Your task to perform on an android device: Do I have any events tomorrow? Image 0: 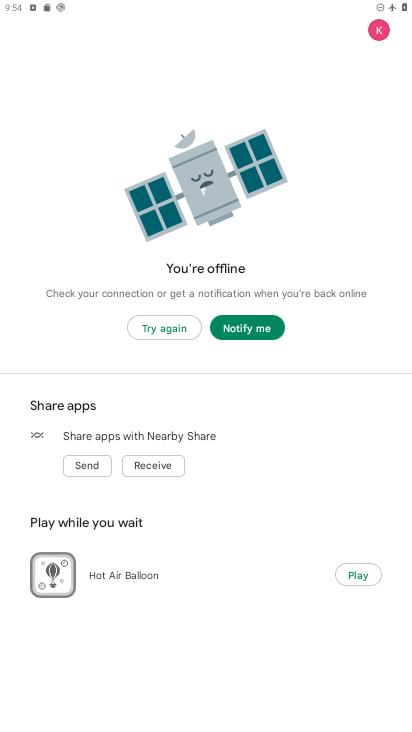
Step 0: press home button
Your task to perform on an android device: Do I have any events tomorrow? Image 1: 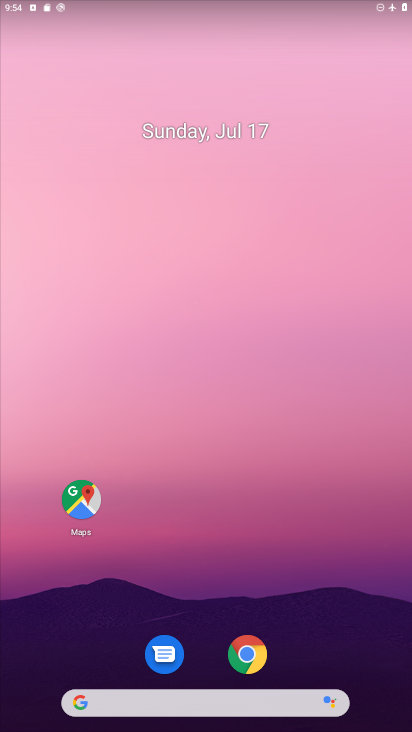
Step 1: drag from (193, 629) to (167, 120)
Your task to perform on an android device: Do I have any events tomorrow? Image 2: 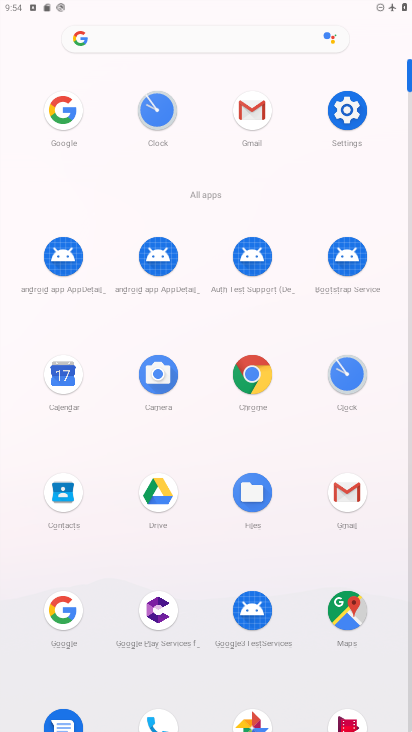
Step 2: click (46, 379)
Your task to perform on an android device: Do I have any events tomorrow? Image 3: 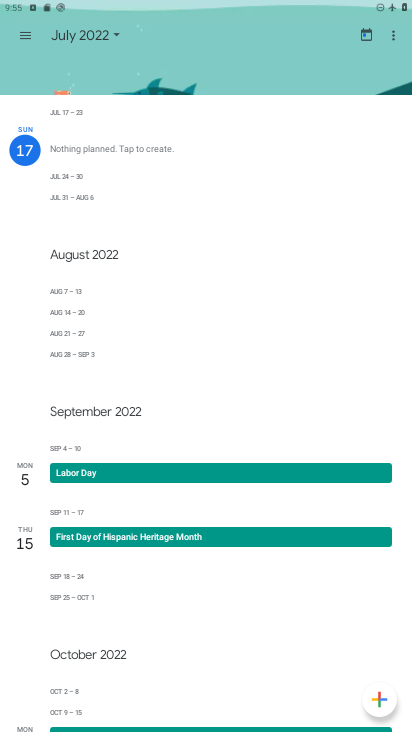
Step 3: click (110, 40)
Your task to perform on an android device: Do I have any events tomorrow? Image 4: 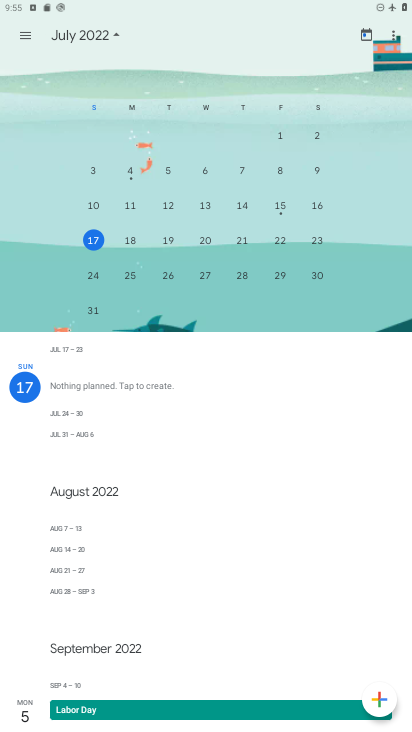
Step 4: click (120, 242)
Your task to perform on an android device: Do I have any events tomorrow? Image 5: 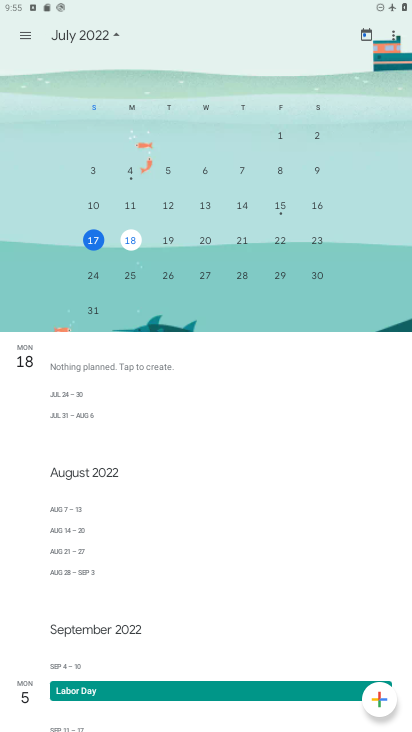
Step 5: task complete